Your task to perform on an android device: What's on my calendar tomorrow? Image 0: 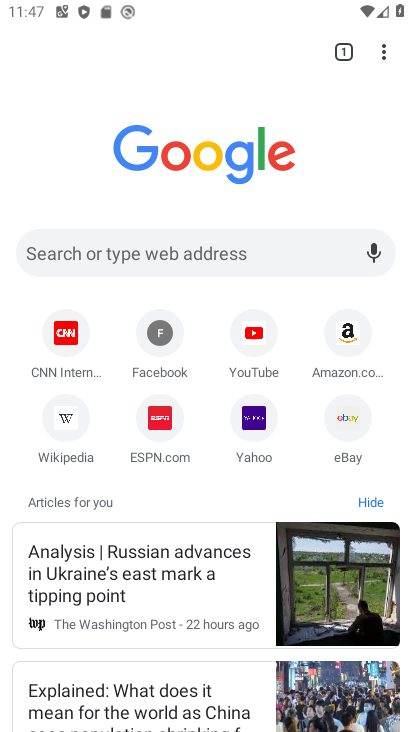
Step 0: task complete